Your task to perform on an android device: Check the weather Image 0: 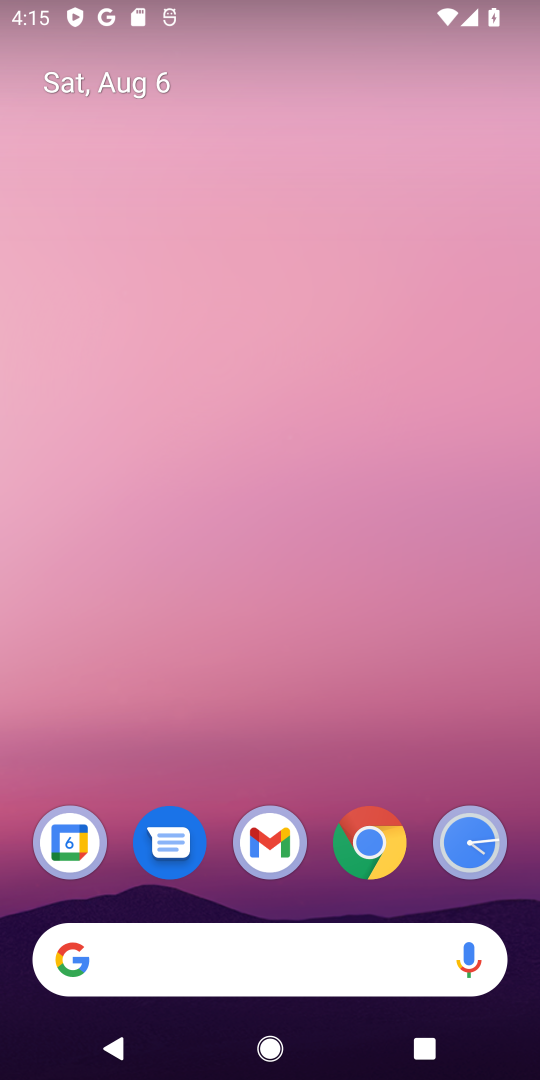
Step 0: drag from (9, 348) to (522, 274)
Your task to perform on an android device: Check the weather Image 1: 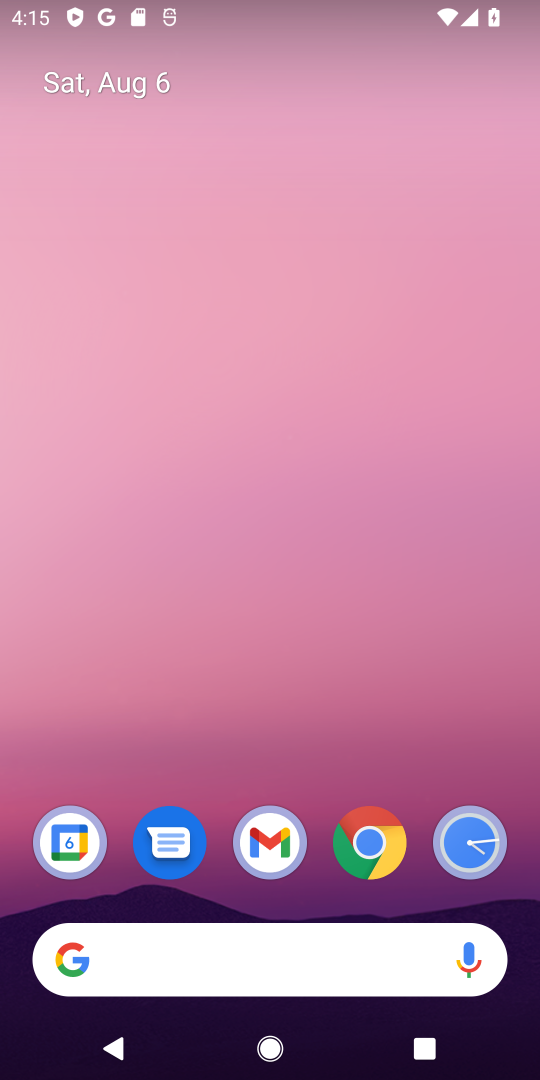
Step 1: task complete